Your task to perform on an android device: Search for Mexican restaurants on Maps Image 0: 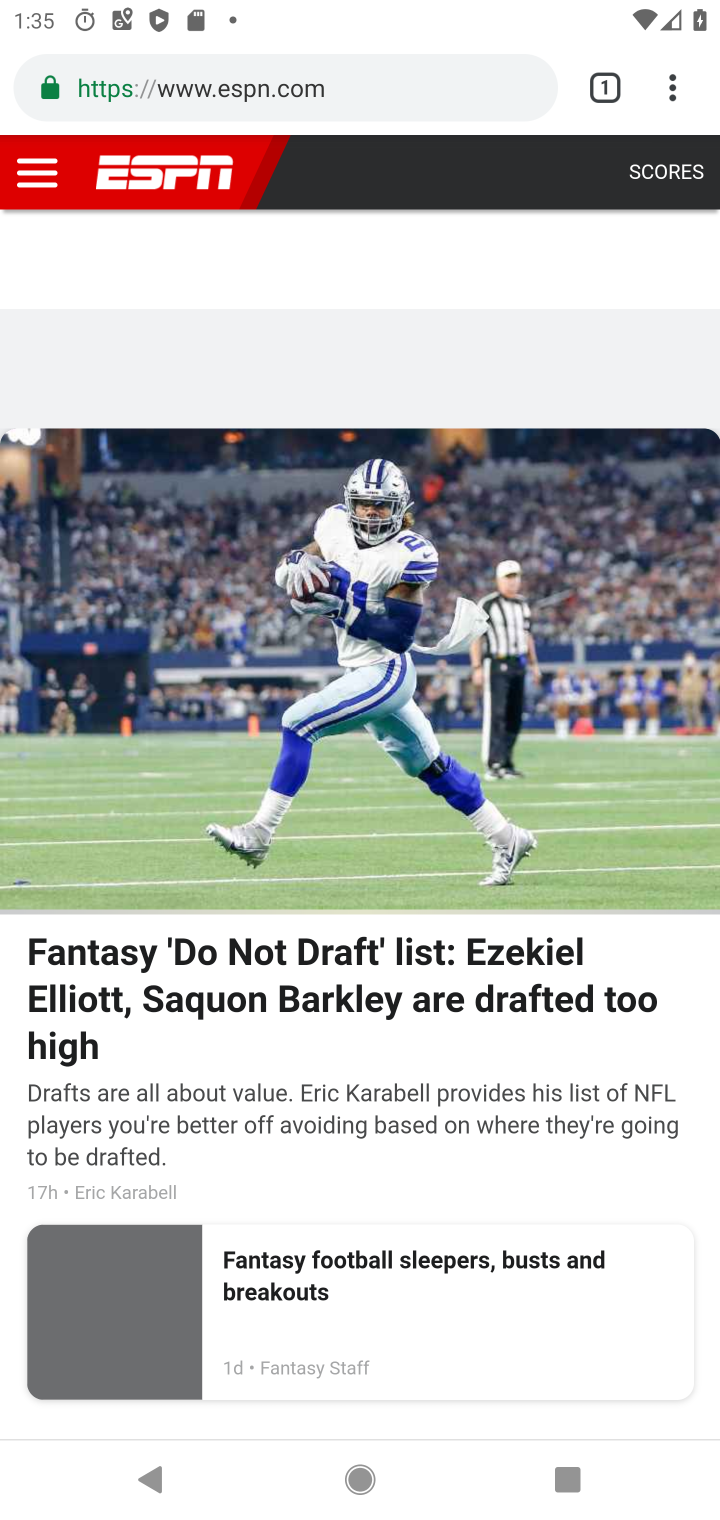
Step 0: press home button
Your task to perform on an android device: Search for Mexican restaurants on Maps Image 1: 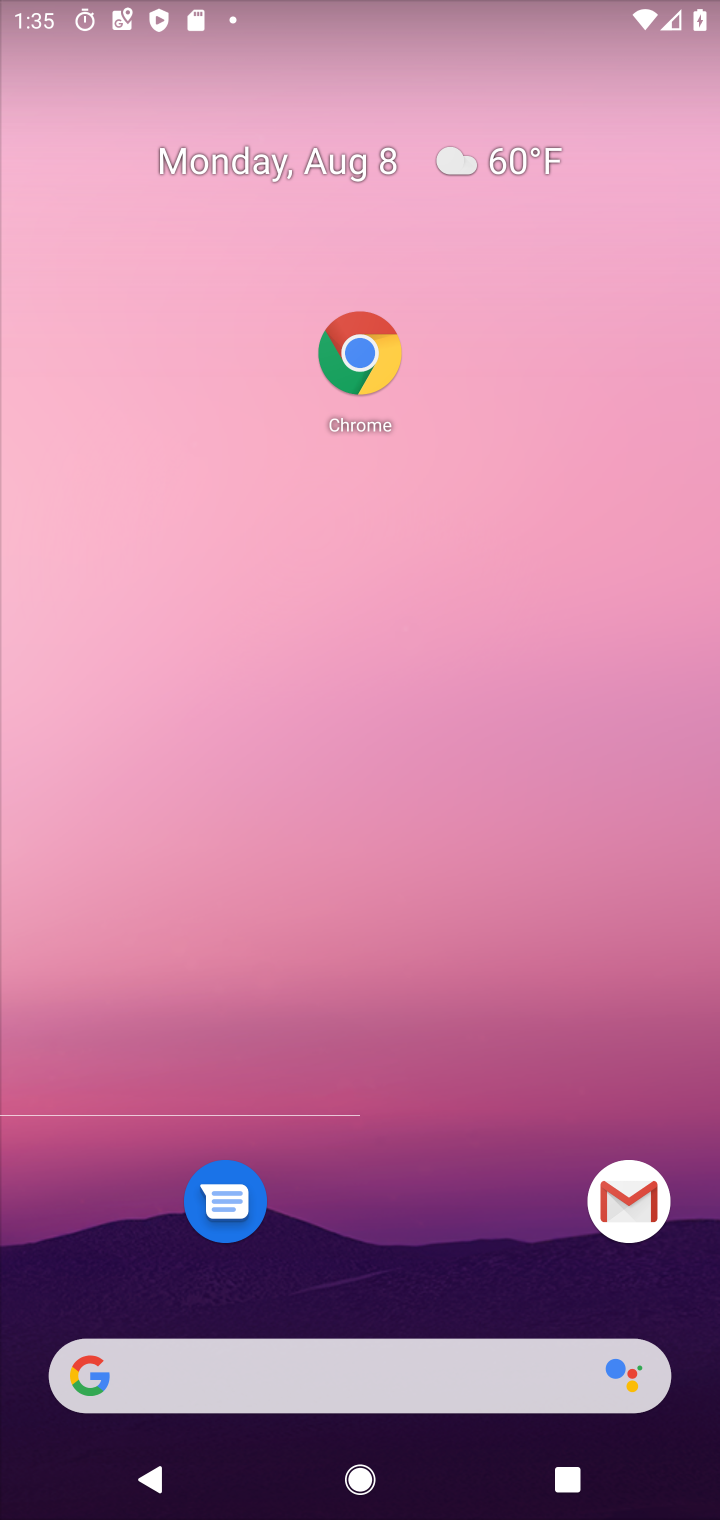
Step 1: drag from (431, 1419) to (710, 145)
Your task to perform on an android device: Search for Mexican restaurants on Maps Image 2: 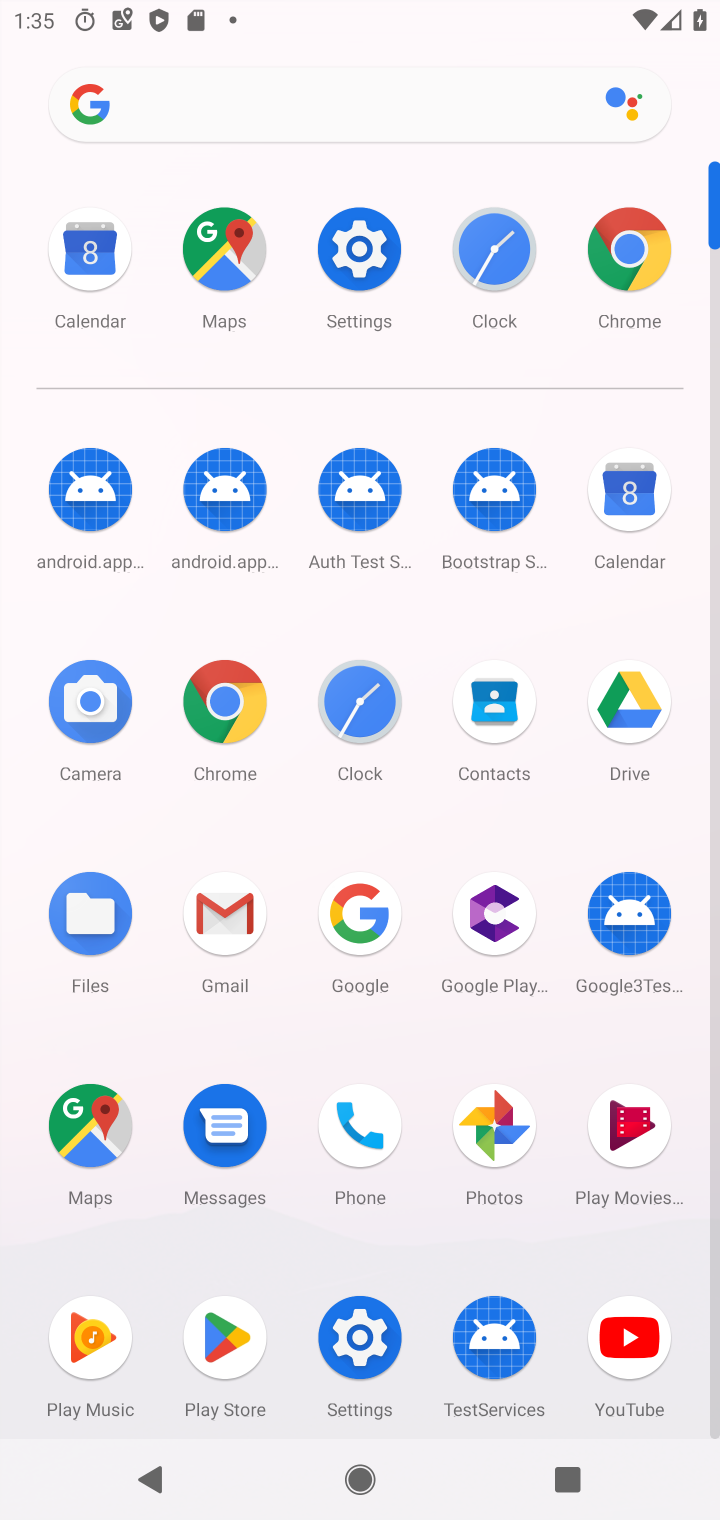
Step 2: click (222, 264)
Your task to perform on an android device: Search for Mexican restaurants on Maps Image 3: 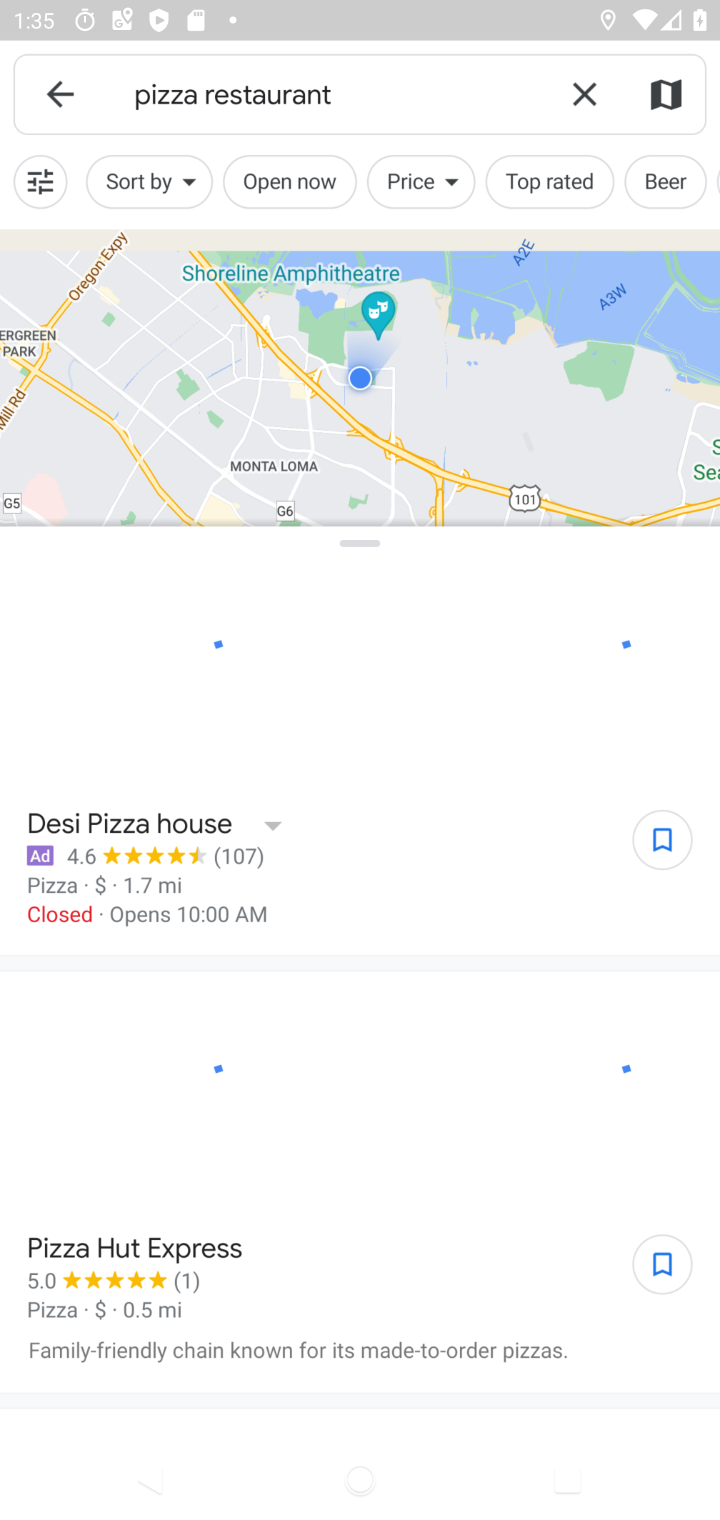
Step 3: click (588, 99)
Your task to perform on an android device: Search for Mexican restaurants on Maps Image 4: 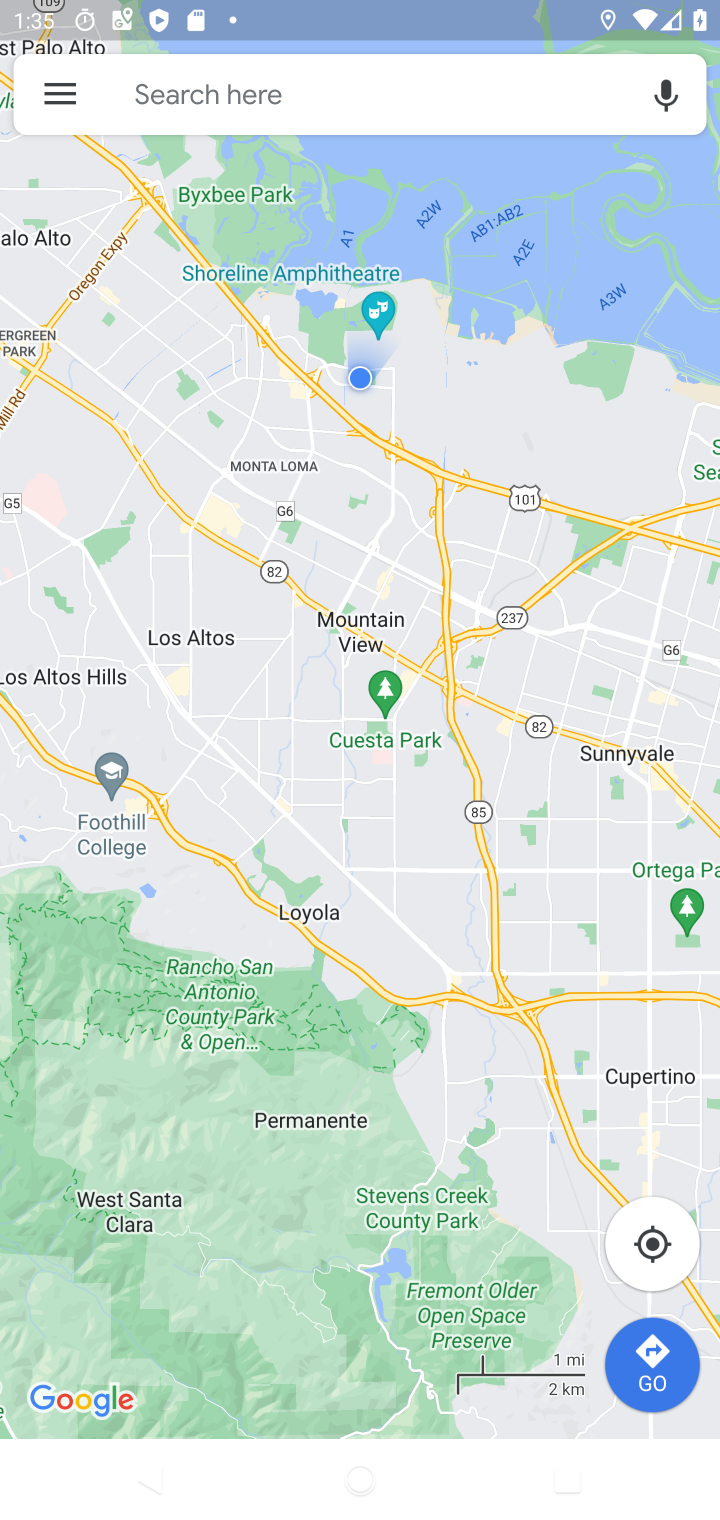
Step 4: click (384, 93)
Your task to perform on an android device: Search for Mexican restaurants on Maps Image 5: 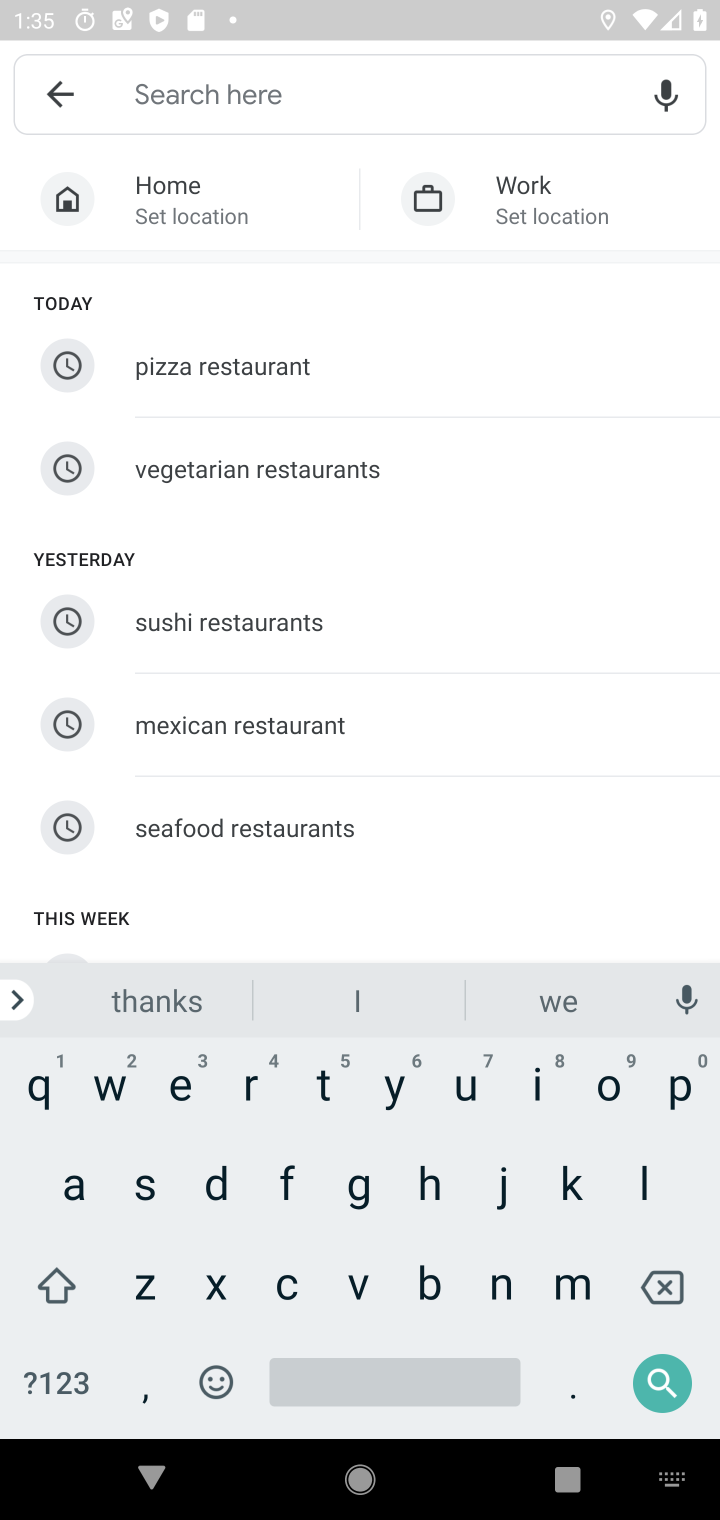
Step 5: click (285, 728)
Your task to perform on an android device: Search for Mexican restaurants on Maps Image 6: 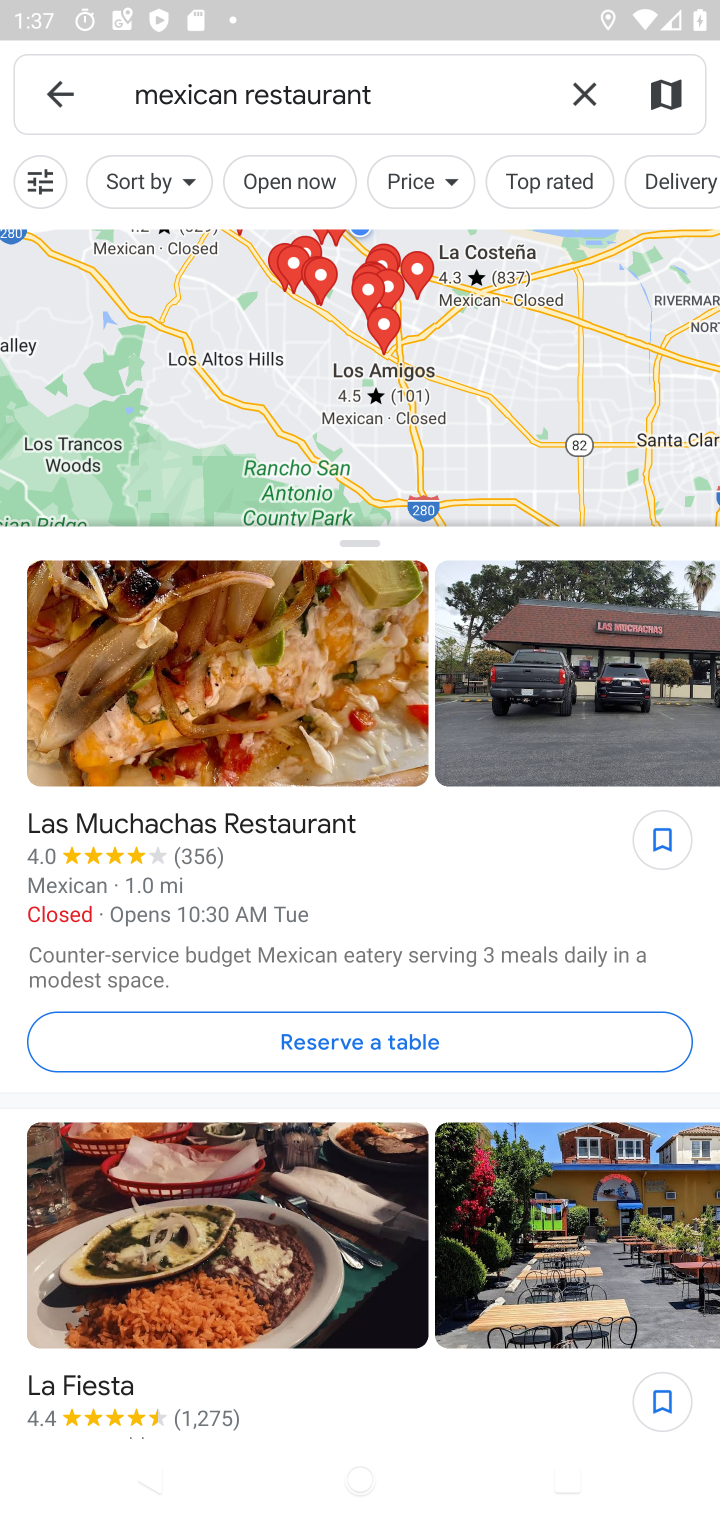
Step 6: task complete